Your task to perform on an android device: Is it going to rain tomorrow? Image 0: 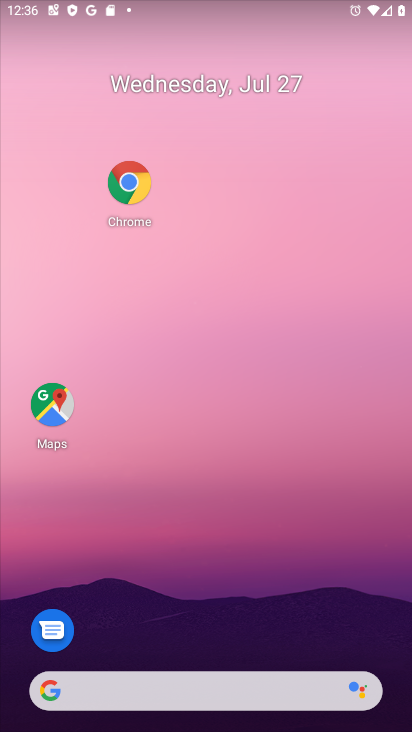
Step 0: drag from (124, 717) to (61, 717)
Your task to perform on an android device: Is it going to rain tomorrow? Image 1: 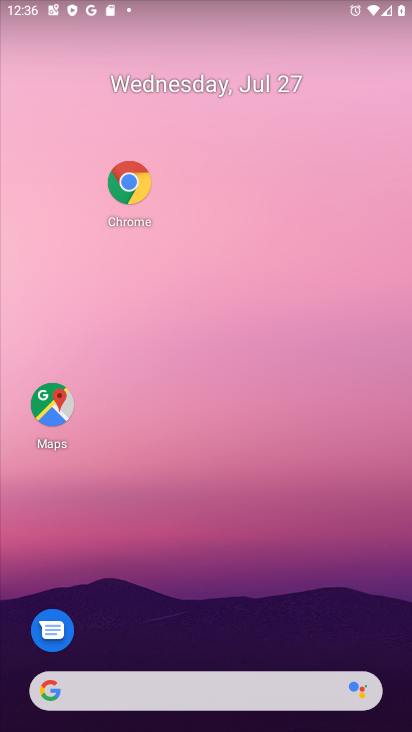
Step 1: click (159, 697)
Your task to perform on an android device: Is it going to rain tomorrow? Image 2: 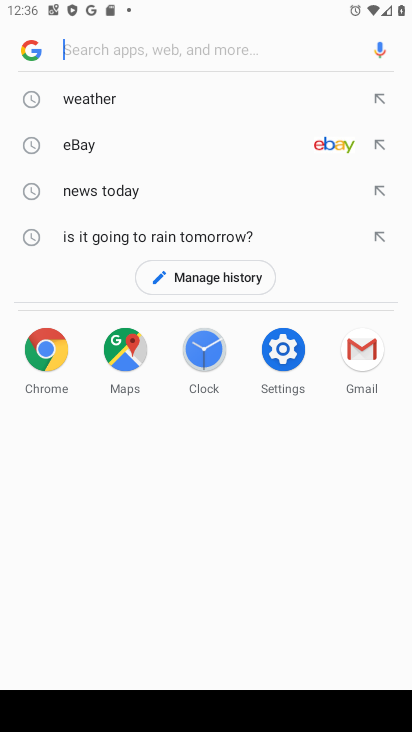
Step 2: click (197, 231)
Your task to perform on an android device: Is it going to rain tomorrow? Image 3: 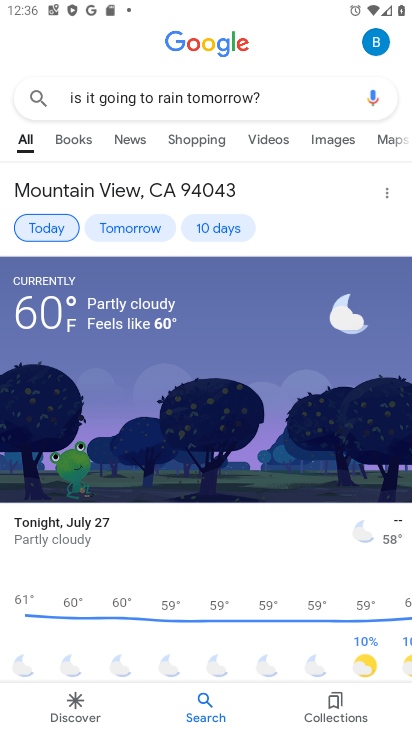
Step 3: task complete